Your task to perform on an android device: toggle improve location accuracy Image 0: 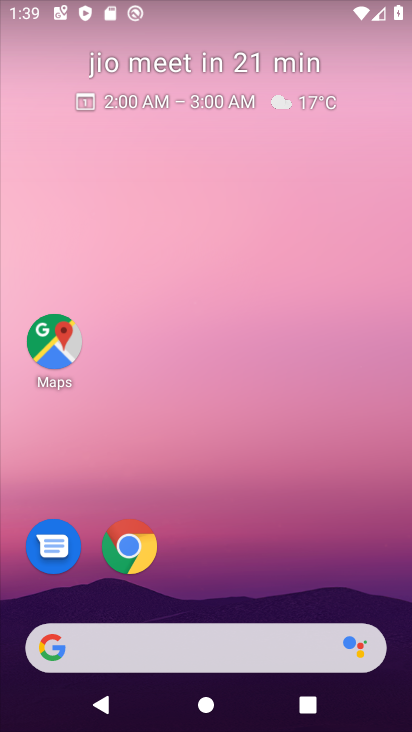
Step 0: drag from (210, 604) to (241, 42)
Your task to perform on an android device: toggle improve location accuracy Image 1: 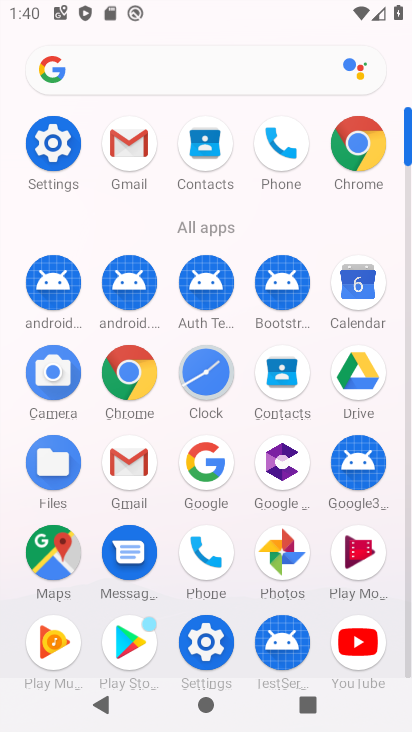
Step 1: task complete